Your task to perform on an android device: Open Google Maps and go to "Timeline" Image 0: 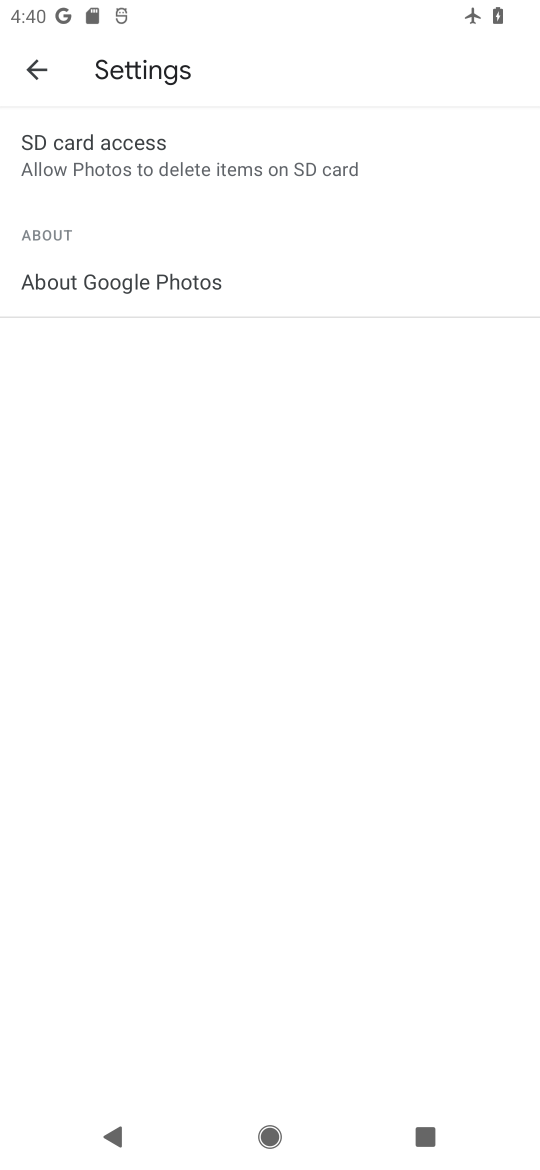
Step 0: press back button
Your task to perform on an android device: Open Google Maps and go to "Timeline" Image 1: 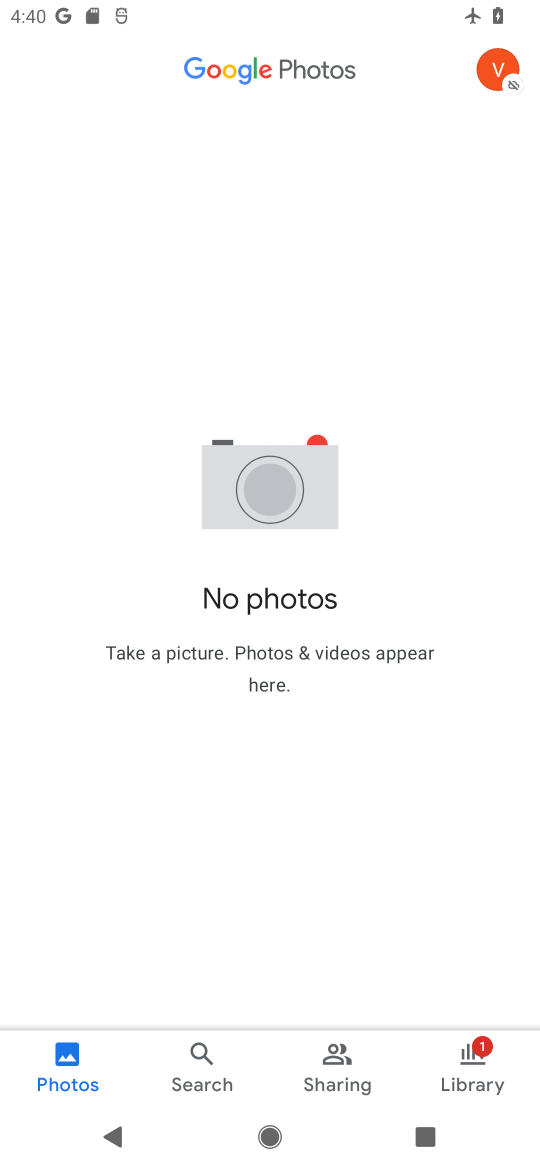
Step 1: press back button
Your task to perform on an android device: Open Google Maps and go to "Timeline" Image 2: 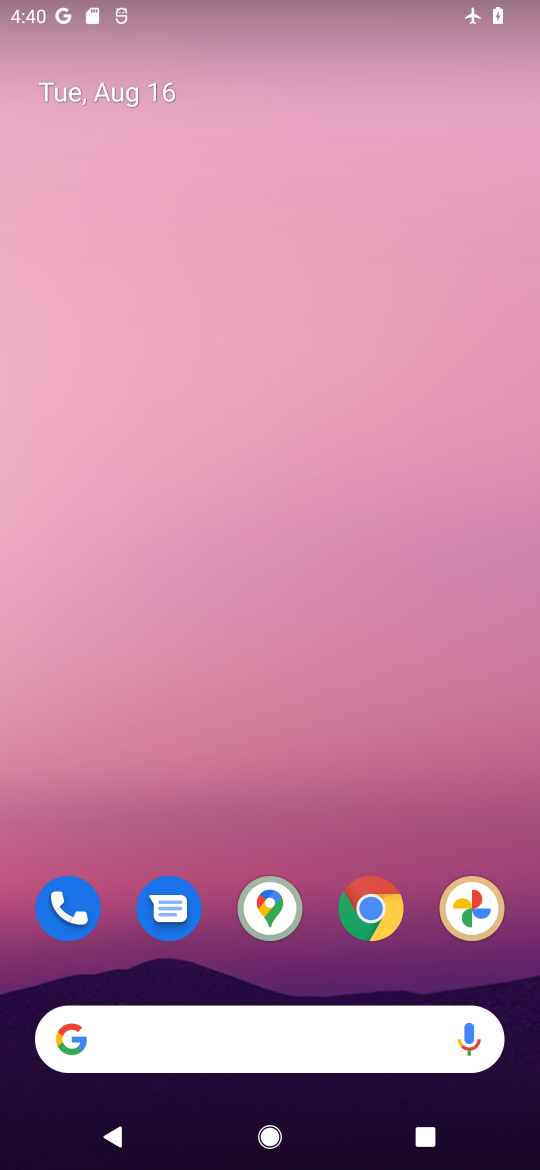
Step 2: click (284, 903)
Your task to perform on an android device: Open Google Maps and go to "Timeline" Image 3: 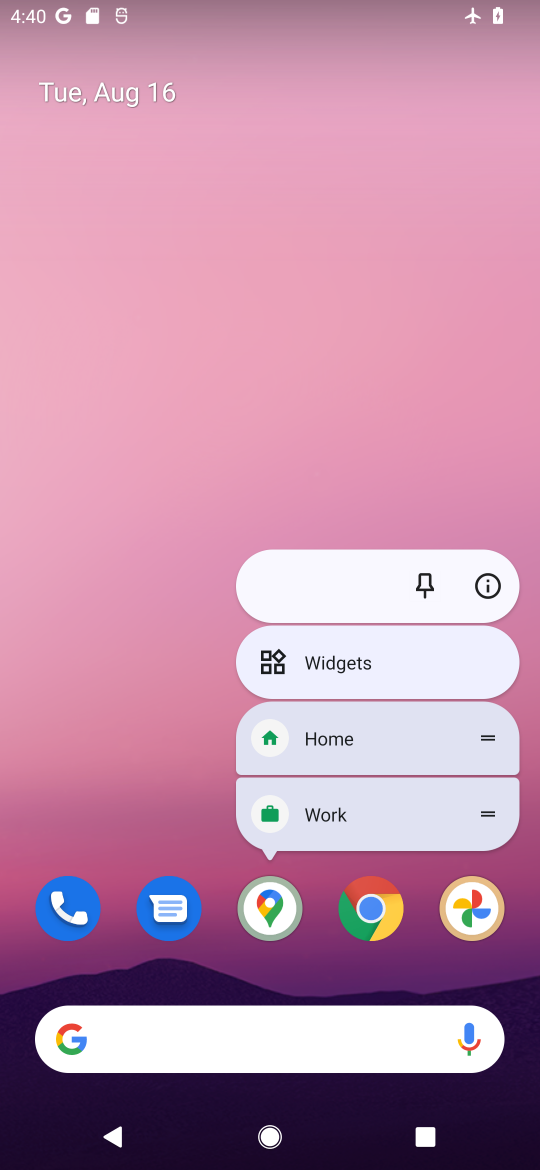
Step 3: click (285, 919)
Your task to perform on an android device: Open Google Maps and go to "Timeline" Image 4: 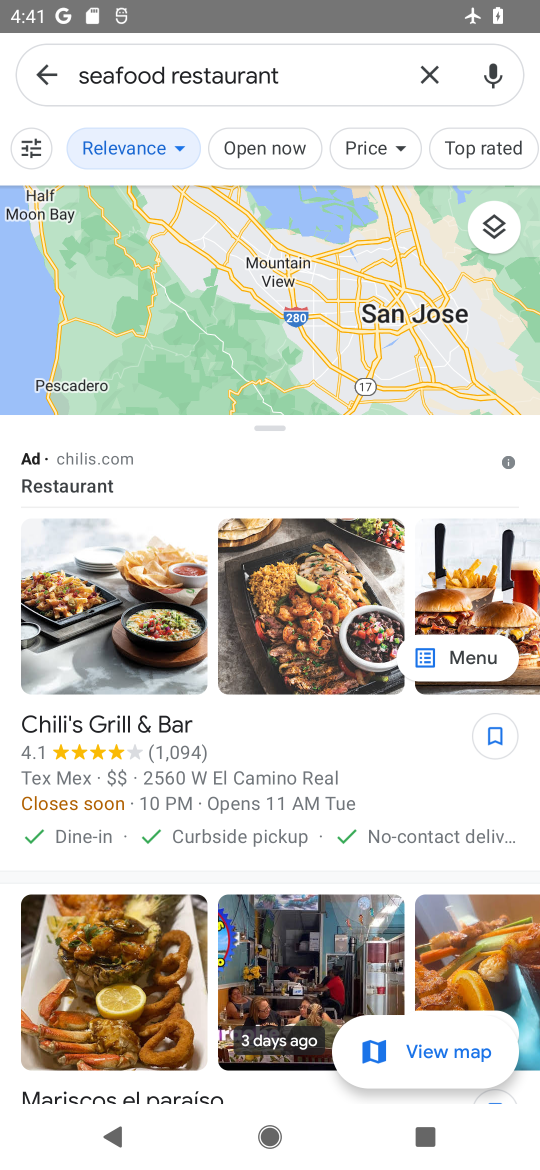
Step 4: press back button
Your task to perform on an android device: Open Google Maps and go to "Timeline" Image 5: 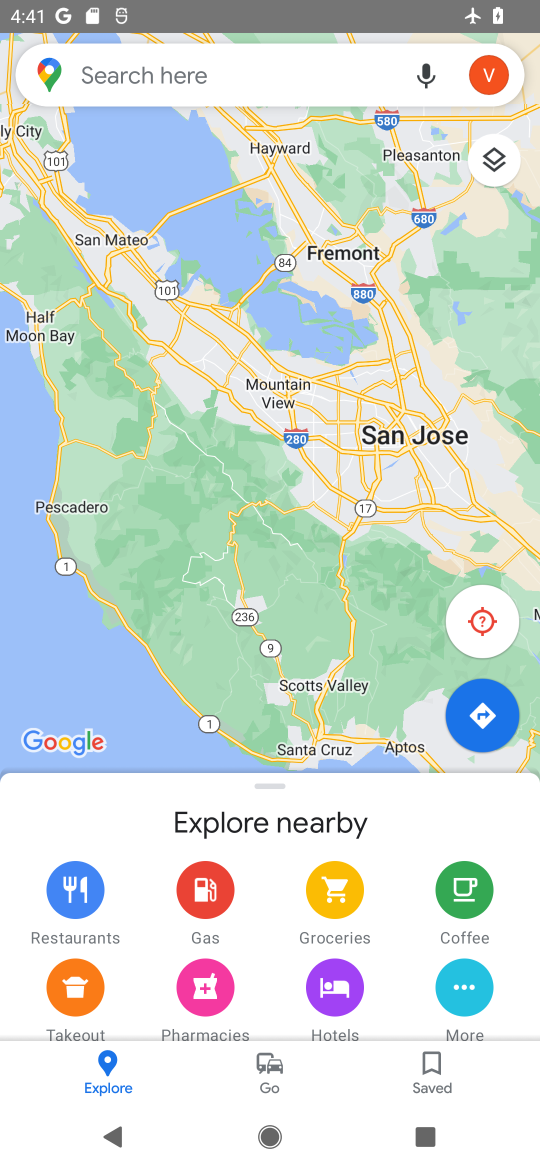
Step 5: click (502, 75)
Your task to perform on an android device: Open Google Maps and go to "Timeline" Image 6: 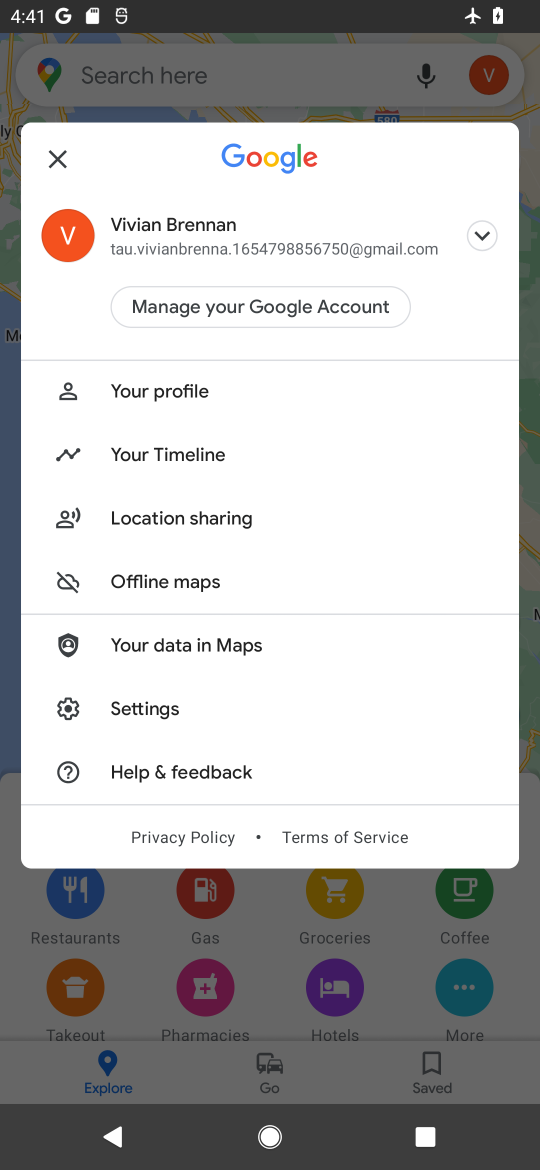
Step 6: click (131, 460)
Your task to perform on an android device: Open Google Maps and go to "Timeline" Image 7: 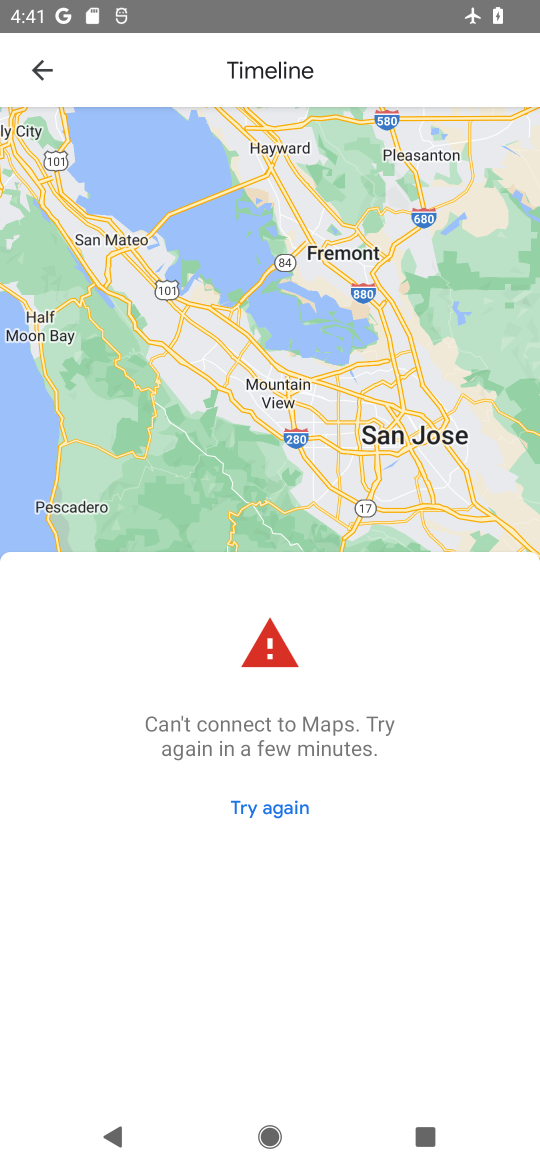
Step 7: task complete